Your task to perform on an android device: change notifications settings Image 0: 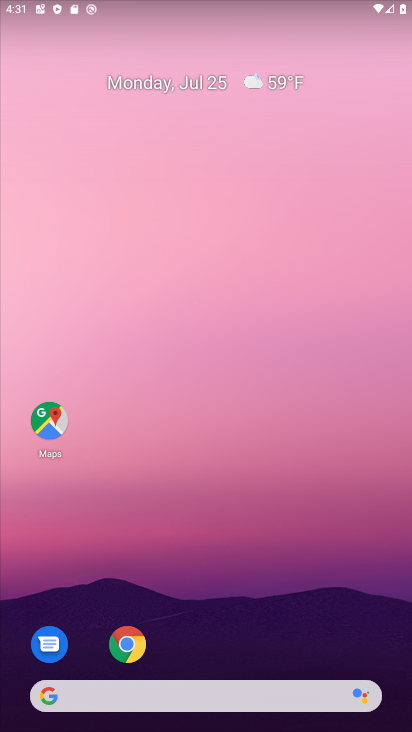
Step 0: drag from (212, 665) to (160, 116)
Your task to perform on an android device: change notifications settings Image 1: 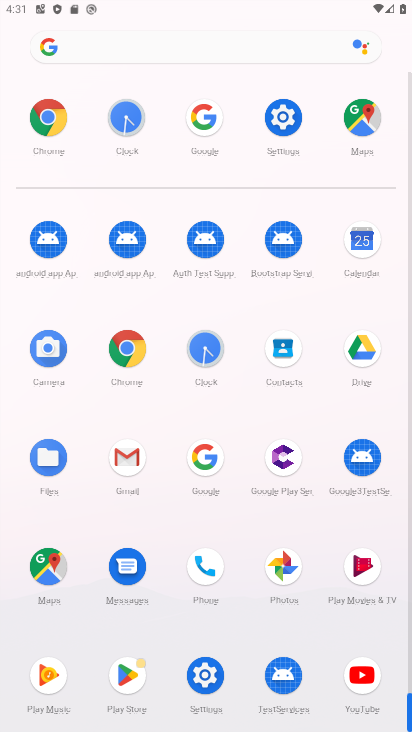
Step 1: click (292, 125)
Your task to perform on an android device: change notifications settings Image 2: 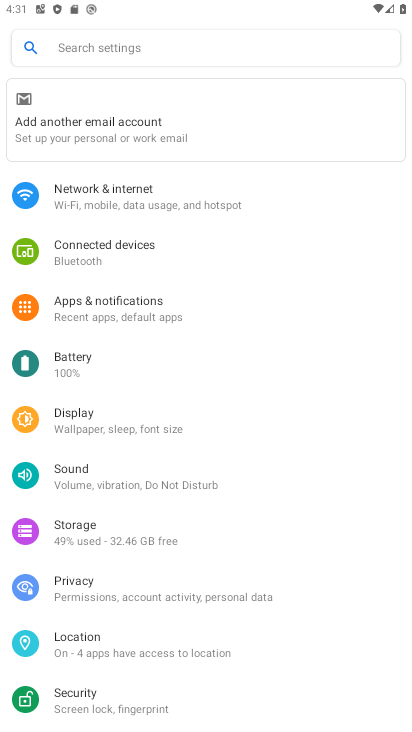
Step 2: click (147, 310)
Your task to perform on an android device: change notifications settings Image 3: 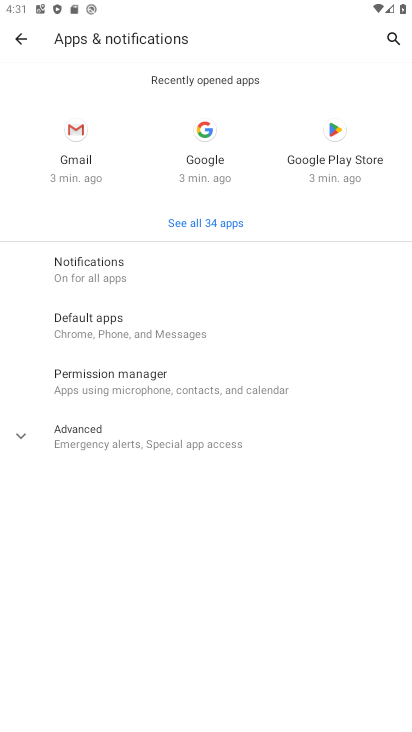
Step 3: click (70, 267)
Your task to perform on an android device: change notifications settings Image 4: 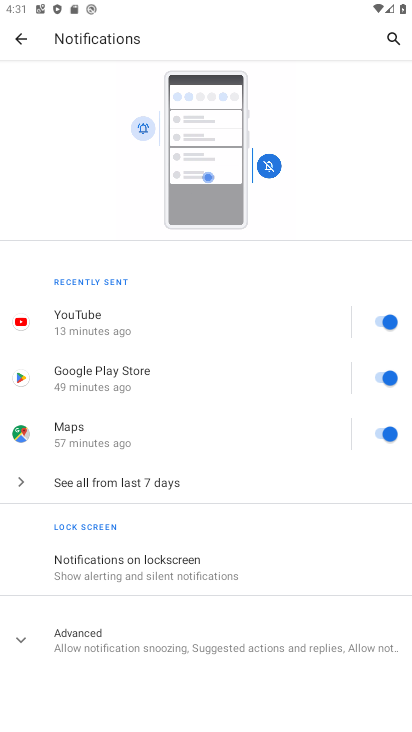
Step 4: click (369, 323)
Your task to perform on an android device: change notifications settings Image 5: 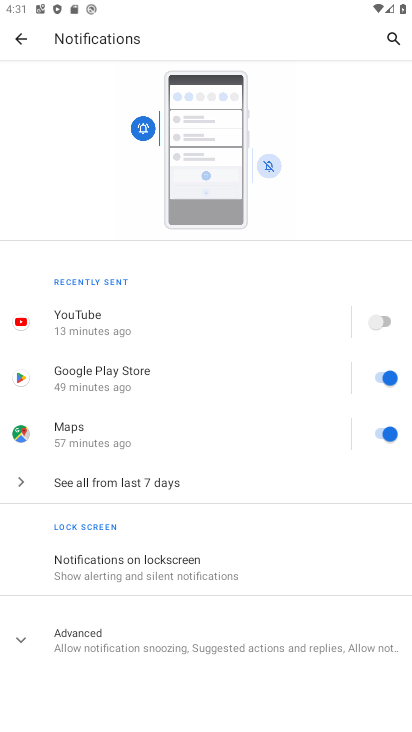
Step 5: click (384, 375)
Your task to perform on an android device: change notifications settings Image 6: 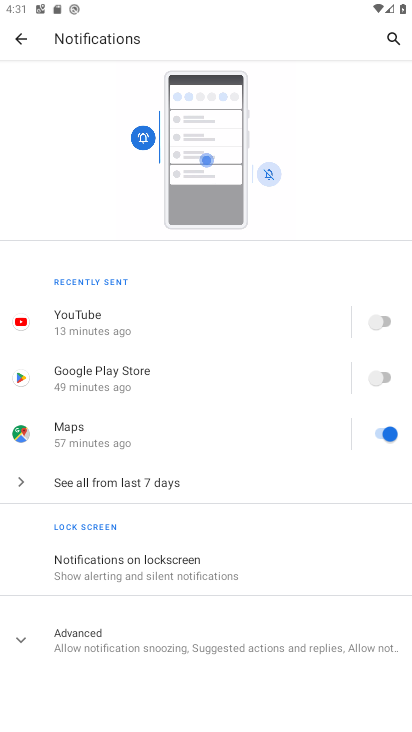
Step 6: click (386, 431)
Your task to perform on an android device: change notifications settings Image 7: 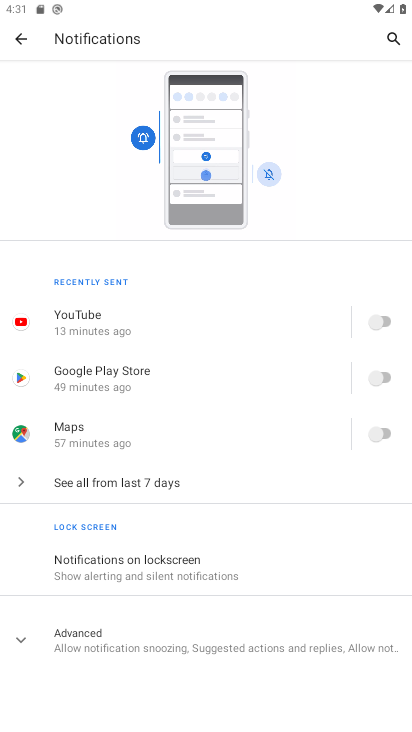
Step 7: click (94, 628)
Your task to perform on an android device: change notifications settings Image 8: 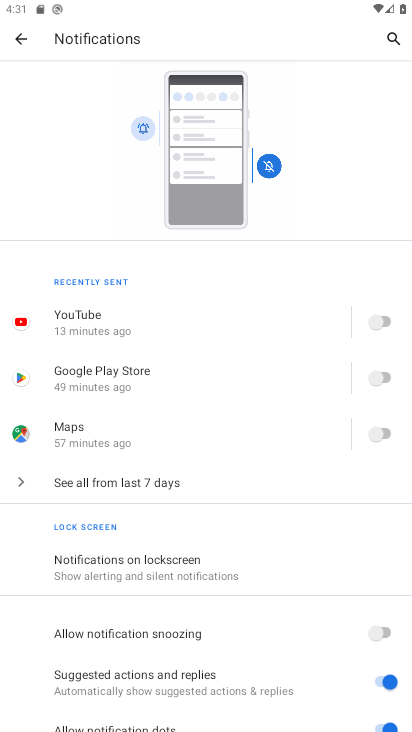
Step 8: drag from (181, 694) to (37, 351)
Your task to perform on an android device: change notifications settings Image 9: 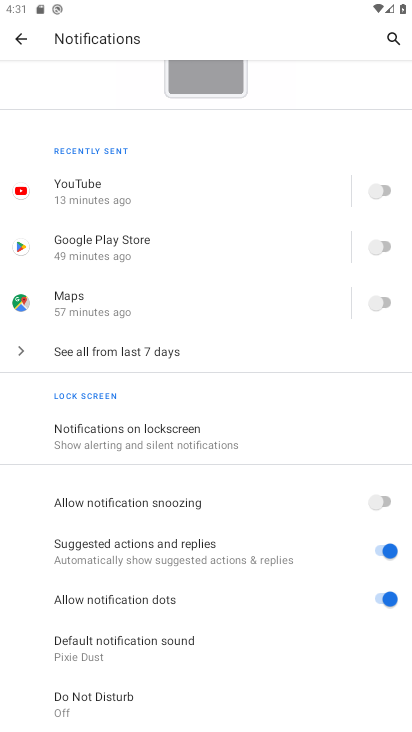
Step 9: click (55, 337)
Your task to perform on an android device: change notifications settings Image 10: 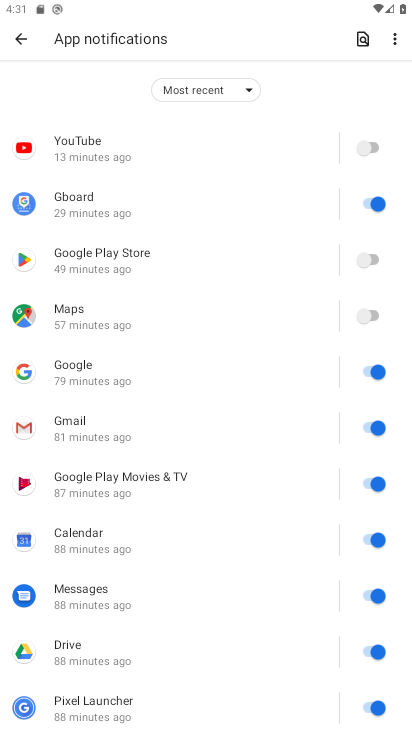
Step 10: click (363, 197)
Your task to perform on an android device: change notifications settings Image 11: 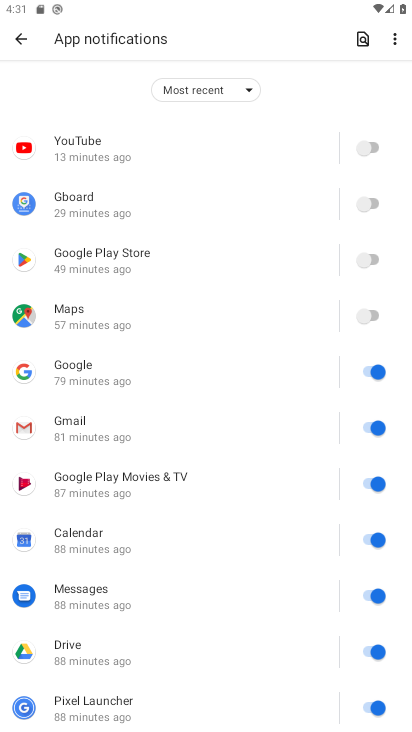
Step 11: click (369, 703)
Your task to perform on an android device: change notifications settings Image 12: 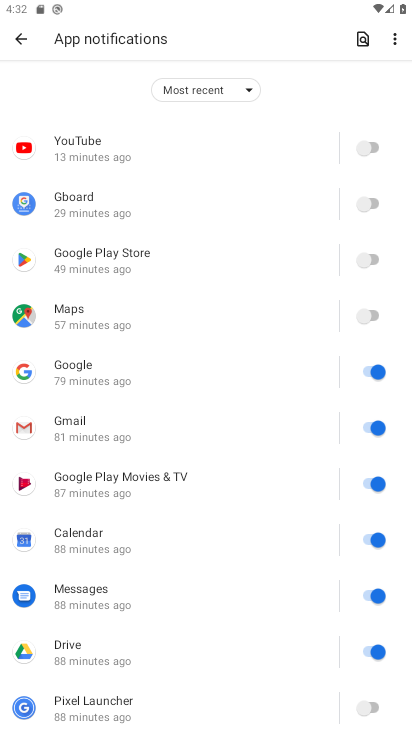
Step 12: click (361, 645)
Your task to perform on an android device: change notifications settings Image 13: 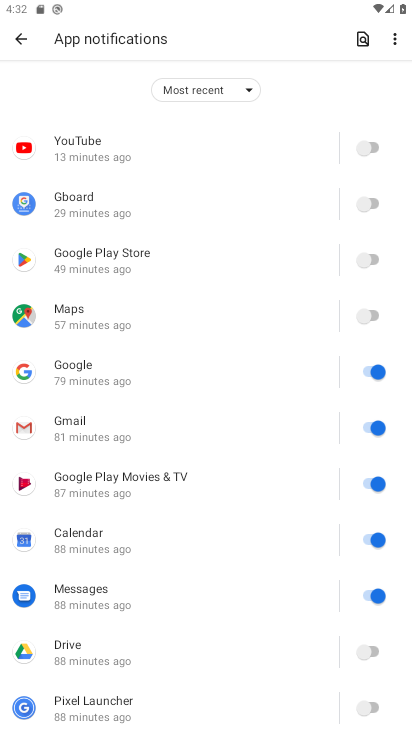
Step 13: click (361, 592)
Your task to perform on an android device: change notifications settings Image 14: 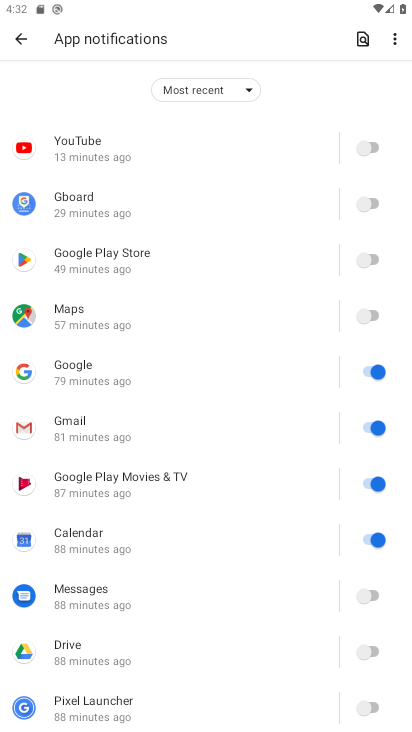
Step 14: click (382, 535)
Your task to perform on an android device: change notifications settings Image 15: 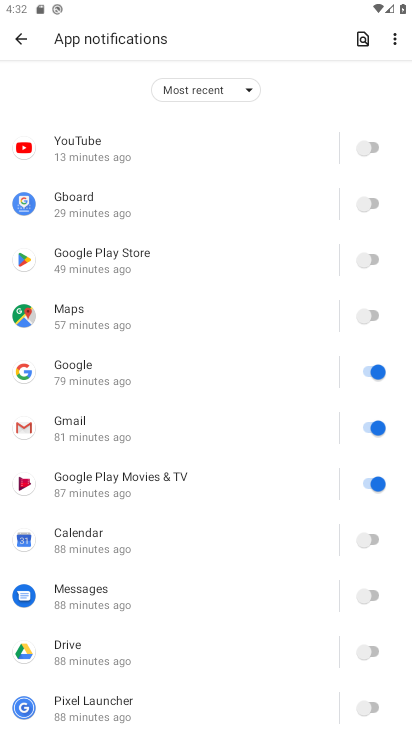
Step 15: click (376, 475)
Your task to perform on an android device: change notifications settings Image 16: 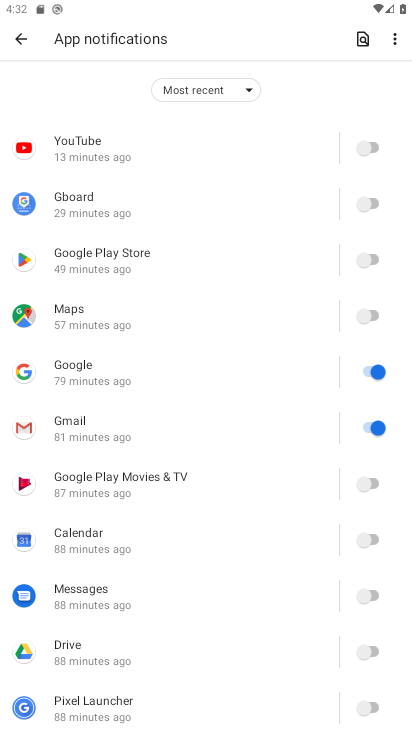
Step 16: click (375, 429)
Your task to perform on an android device: change notifications settings Image 17: 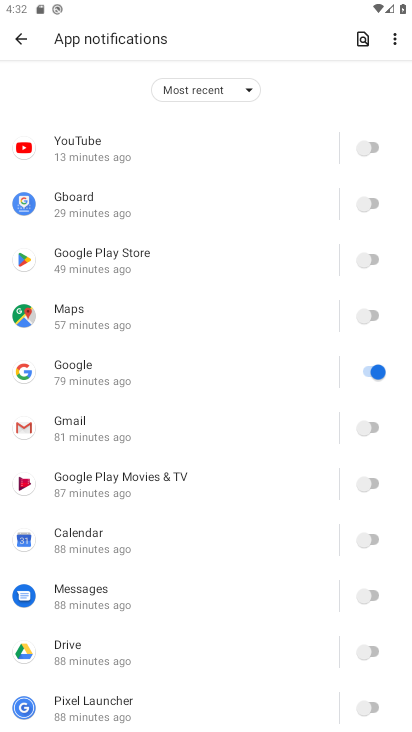
Step 17: click (385, 377)
Your task to perform on an android device: change notifications settings Image 18: 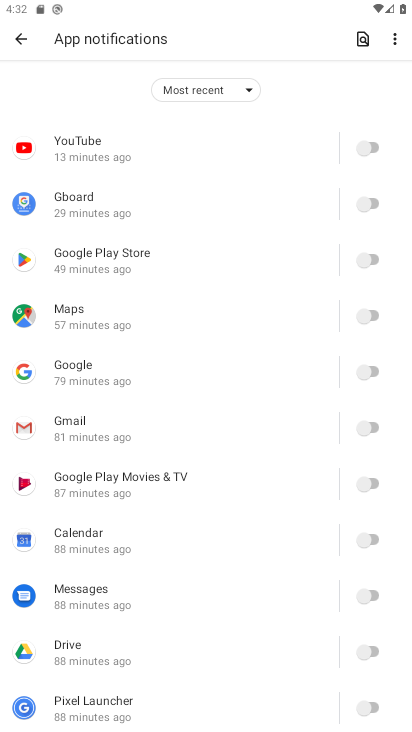
Step 18: task complete